Your task to perform on an android device: Do I have any events today? Image 0: 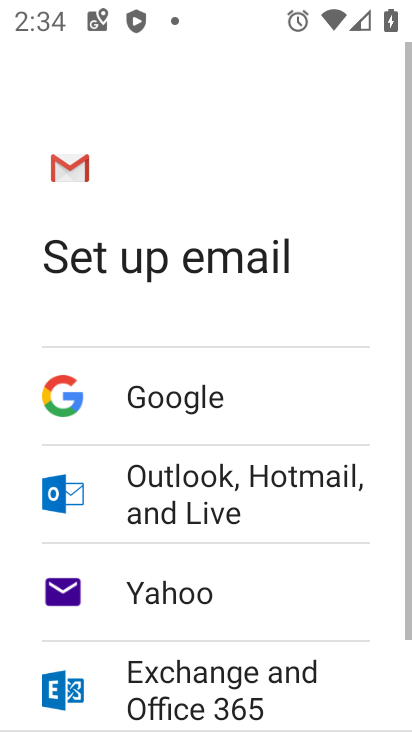
Step 0: press home button
Your task to perform on an android device: Do I have any events today? Image 1: 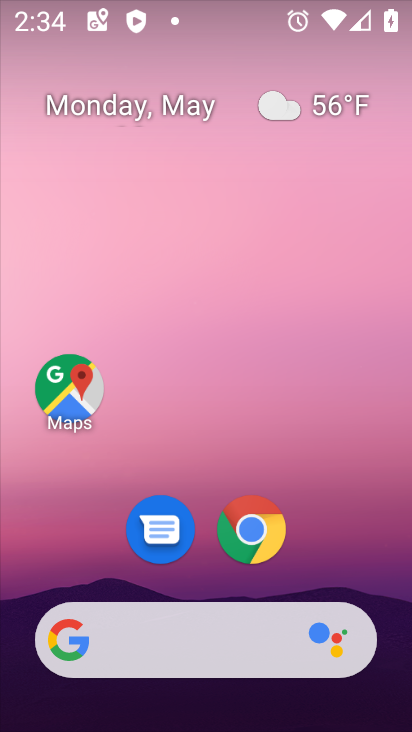
Step 1: drag from (373, 555) to (359, 9)
Your task to perform on an android device: Do I have any events today? Image 2: 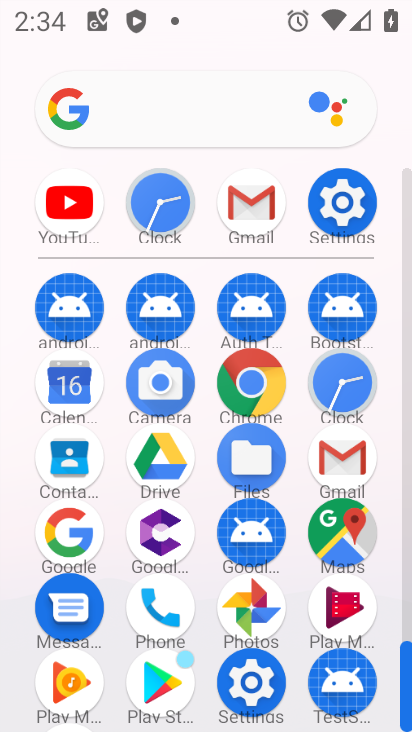
Step 2: click (69, 383)
Your task to perform on an android device: Do I have any events today? Image 3: 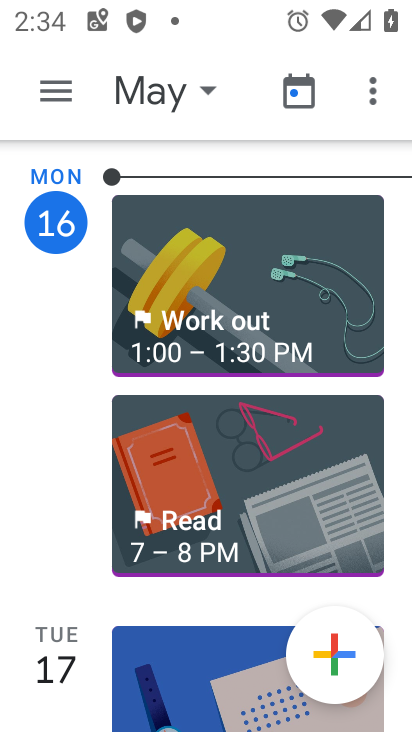
Step 3: click (185, 95)
Your task to perform on an android device: Do I have any events today? Image 4: 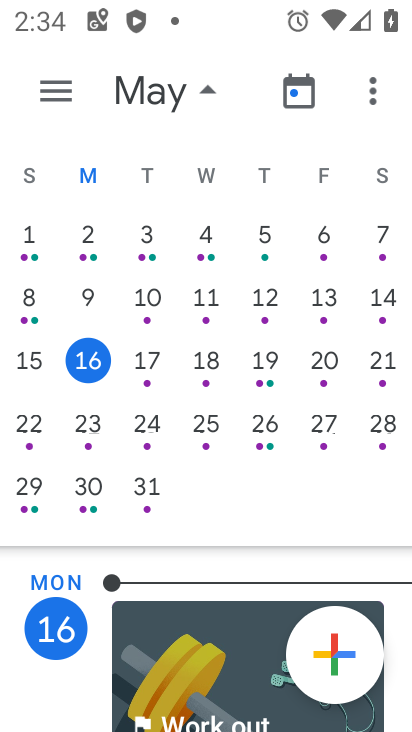
Step 4: click (84, 364)
Your task to perform on an android device: Do I have any events today? Image 5: 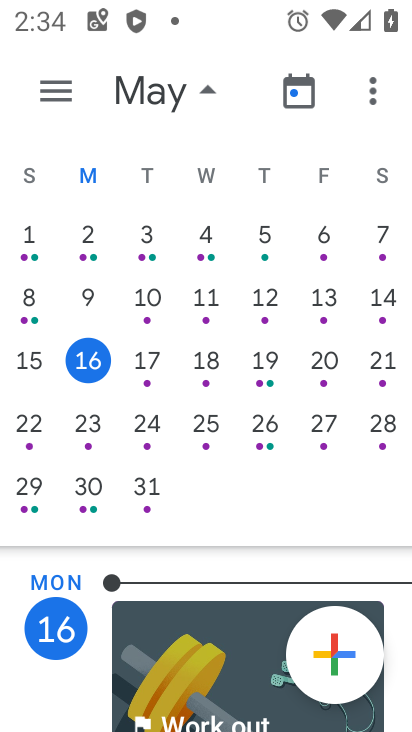
Step 5: task complete